Your task to perform on an android device: move an email to a new category in the gmail app Image 0: 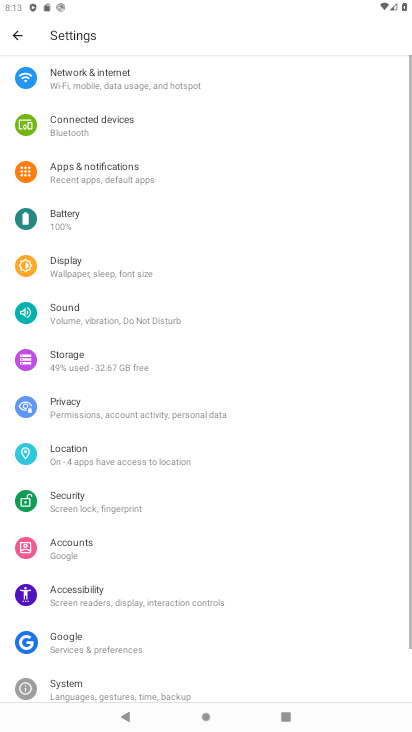
Step 0: press home button
Your task to perform on an android device: move an email to a new category in the gmail app Image 1: 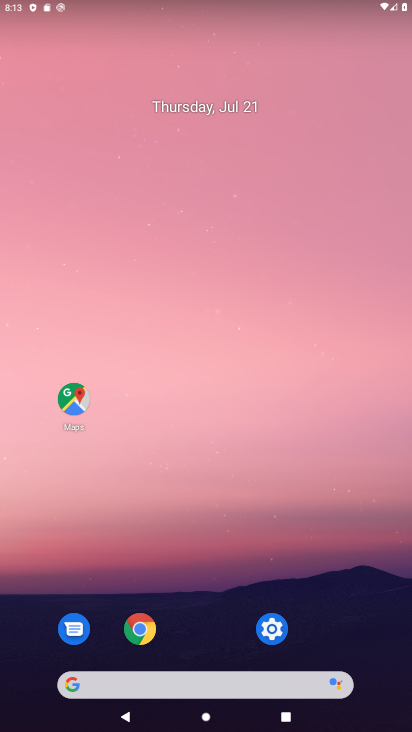
Step 1: drag from (240, 698) to (264, 220)
Your task to perform on an android device: move an email to a new category in the gmail app Image 2: 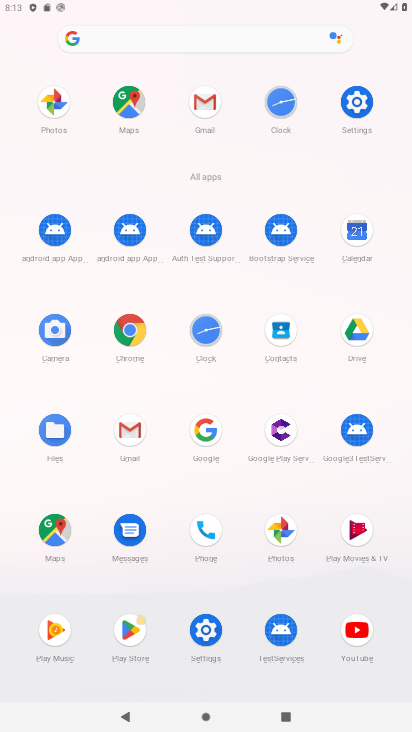
Step 2: drag from (120, 424) to (207, 653)
Your task to perform on an android device: move an email to a new category in the gmail app Image 3: 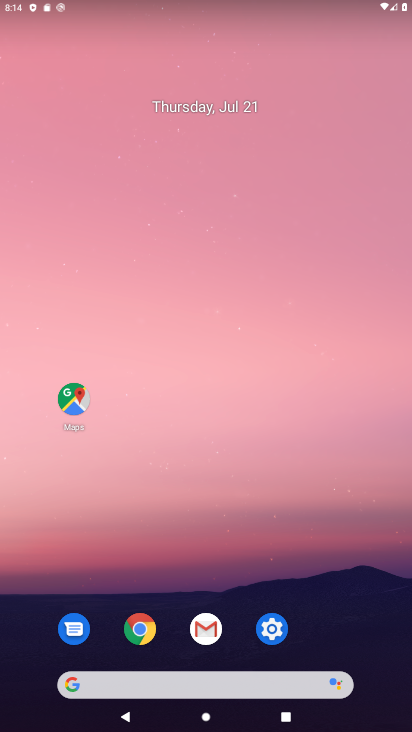
Step 3: click (216, 633)
Your task to perform on an android device: move an email to a new category in the gmail app Image 4: 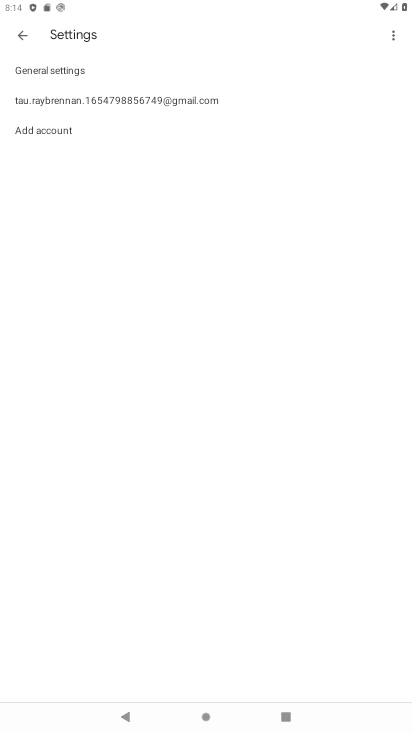
Step 4: click (84, 107)
Your task to perform on an android device: move an email to a new category in the gmail app Image 5: 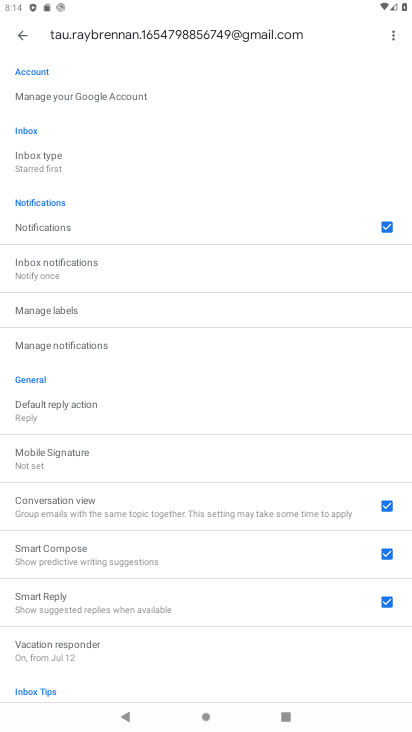
Step 5: click (64, 168)
Your task to perform on an android device: move an email to a new category in the gmail app Image 6: 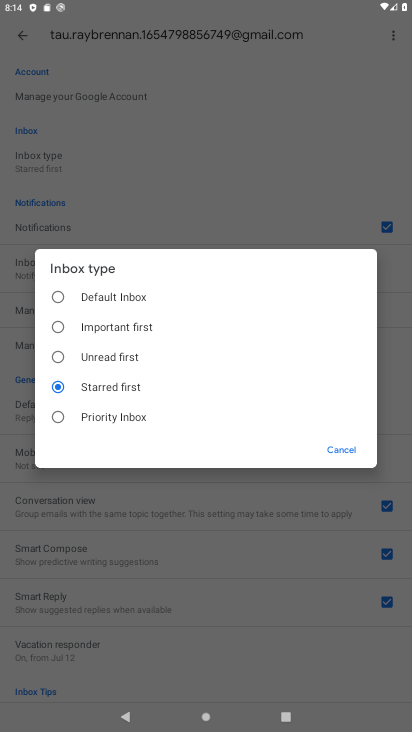
Step 6: click (93, 208)
Your task to perform on an android device: move an email to a new category in the gmail app Image 7: 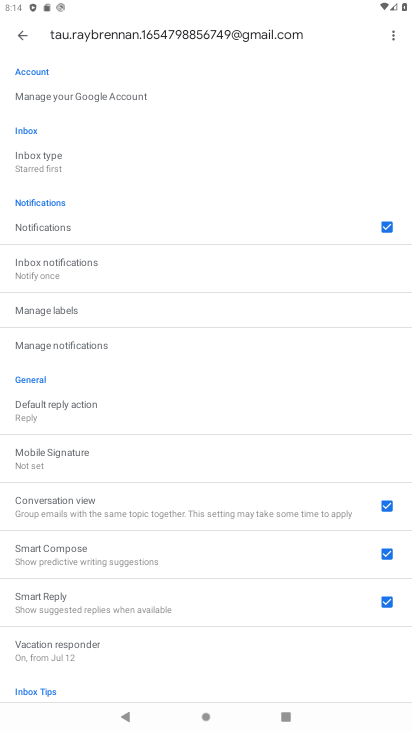
Step 7: click (36, 156)
Your task to perform on an android device: move an email to a new category in the gmail app Image 8: 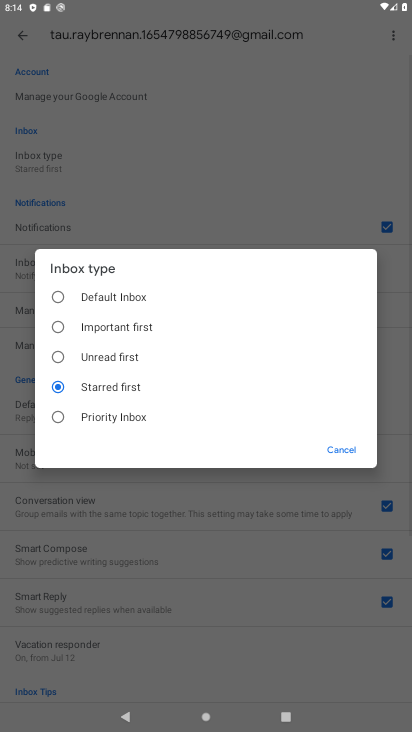
Step 8: click (85, 298)
Your task to perform on an android device: move an email to a new category in the gmail app Image 9: 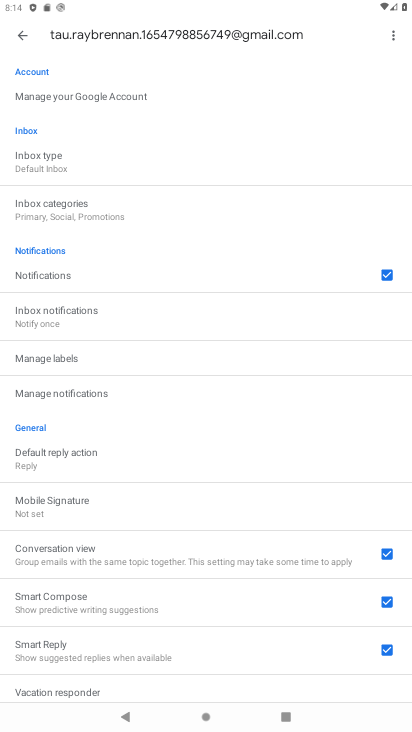
Step 9: click (53, 215)
Your task to perform on an android device: move an email to a new category in the gmail app Image 10: 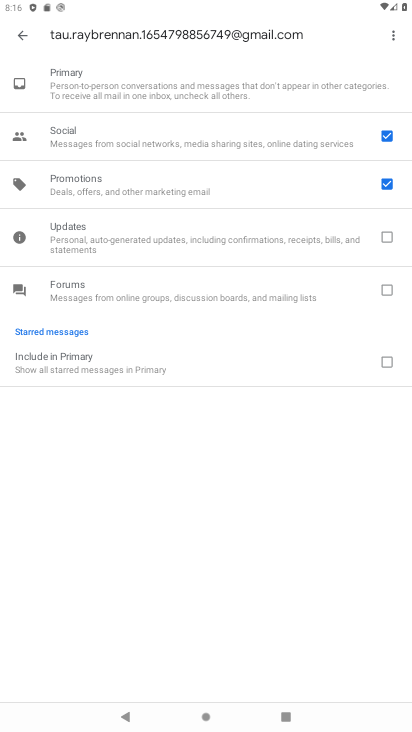
Step 10: task complete